Your task to perform on an android device: change text size in settings app Image 0: 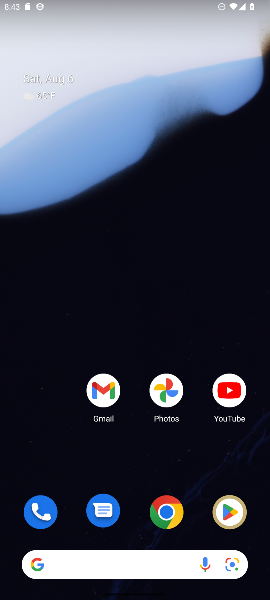
Step 0: press home button
Your task to perform on an android device: change text size in settings app Image 1: 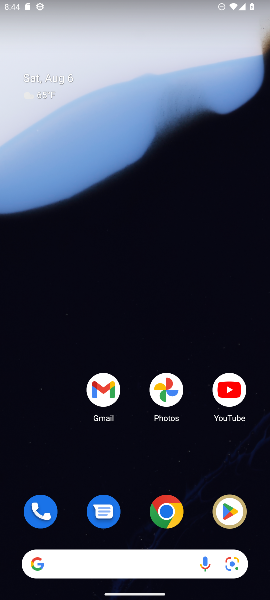
Step 1: drag from (122, 459) to (90, 164)
Your task to perform on an android device: change text size in settings app Image 2: 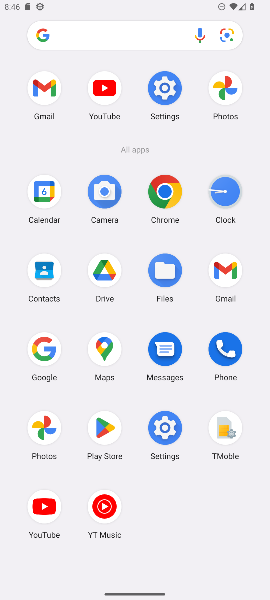
Step 2: click (151, 94)
Your task to perform on an android device: change text size in settings app Image 3: 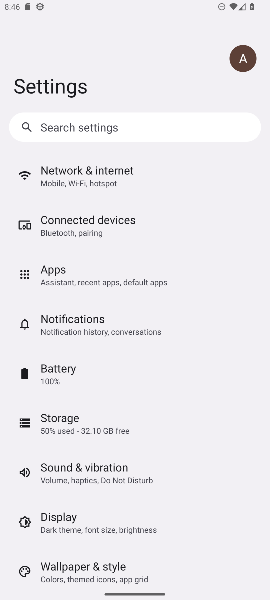
Step 3: click (90, 515)
Your task to perform on an android device: change text size in settings app Image 4: 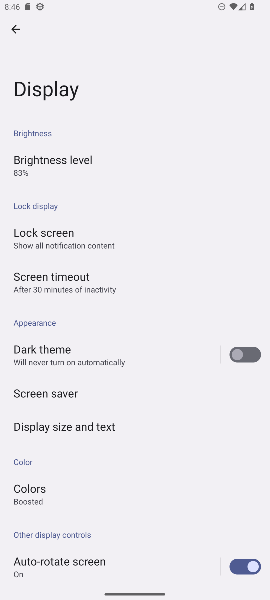
Step 4: click (67, 422)
Your task to perform on an android device: change text size in settings app Image 5: 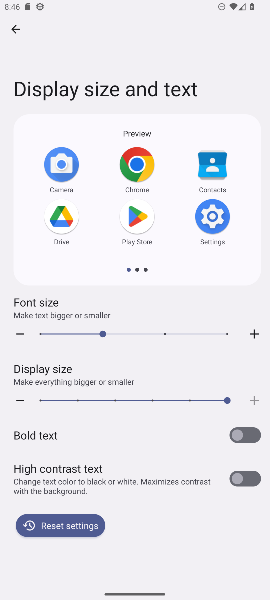
Step 5: click (157, 342)
Your task to perform on an android device: change text size in settings app Image 6: 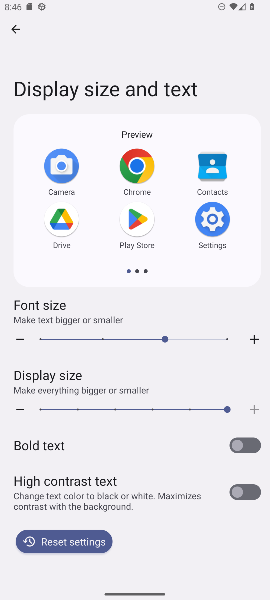
Step 6: click (221, 338)
Your task to perform on an android device: change text size in settings app Image 7: 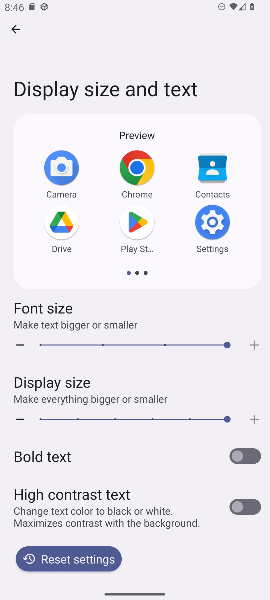
Step 7: task complete